Your task to perform on an android device: Go to Amazon Image 0: 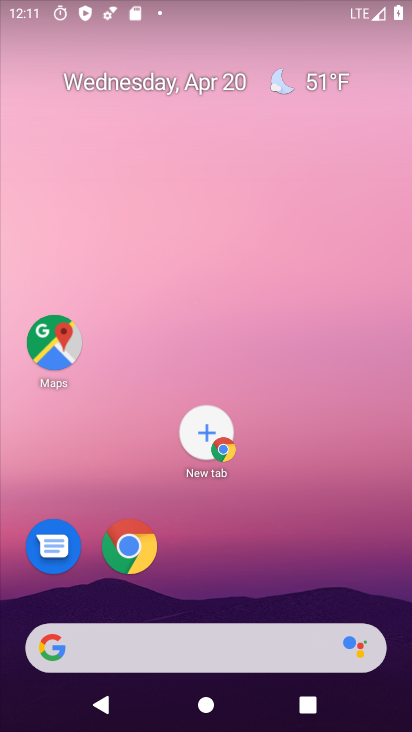
Step 0: click (147, 535)
Your task to perform on an android device: Go to Amazon Image 1: 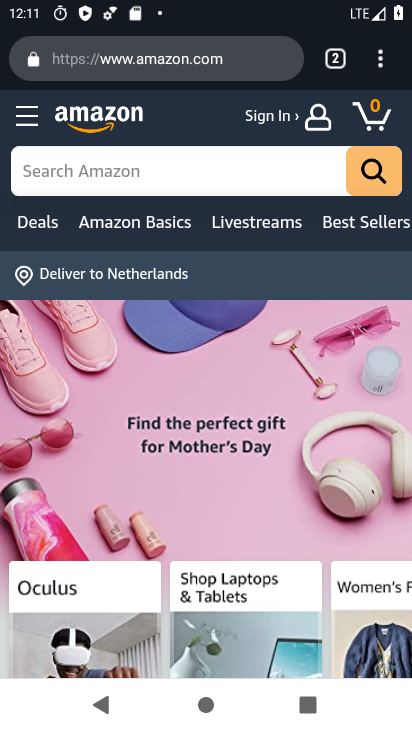
Step 1: click (109, 609)
Your task to perform on an android device: Go to Amazon Image 2: 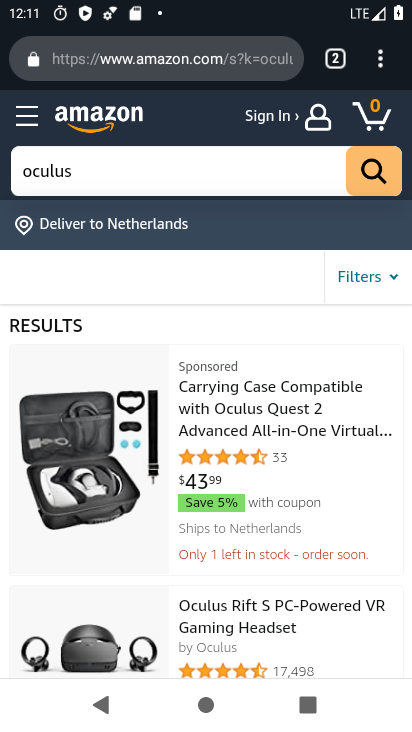
Step 2: click (326, 61)
Your task to perform on an android device: Go to Amazon Image 3: 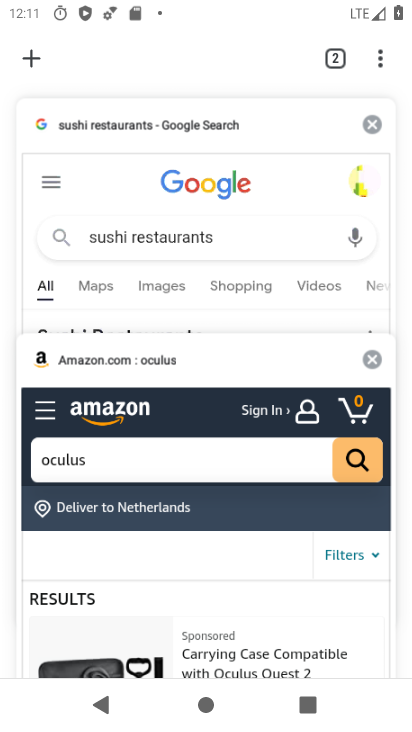
Step 3: click (36, 70)
Your task to perform on an android device: Go to Amazon Image 4: 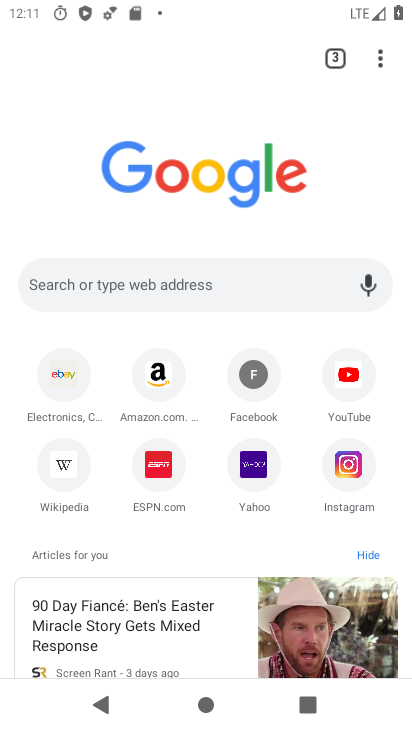
Step 4: click (173, 398)
Your task to perform on an android device: Go to Amazon Image 5: 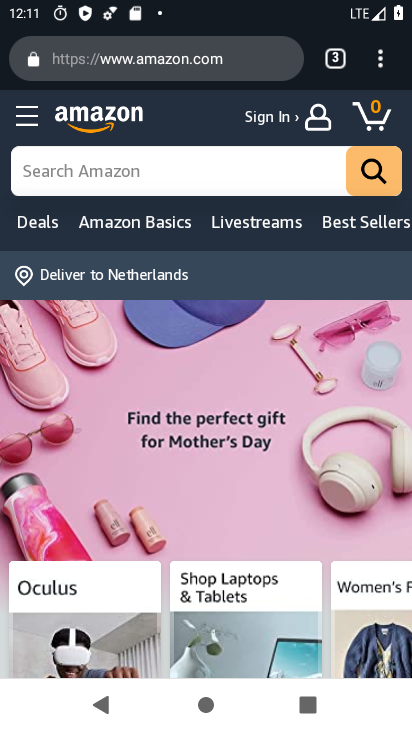
Step 5: task complete